Your task to perform on an android device: Is it going to rain today? Image 0: 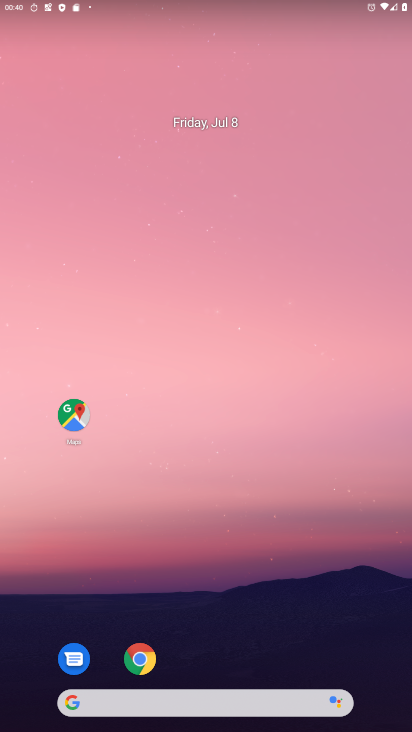
Step 0: click (174, 707)
Your task to perform on an android device: Is it going to rain today? Image 1: 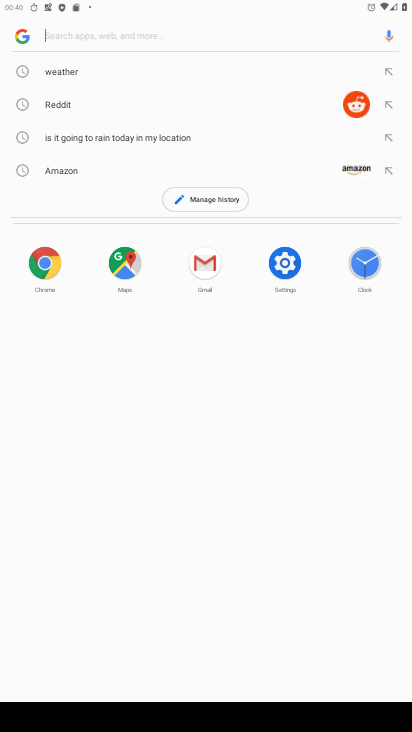
Step 1: click (135, 70)
Your task to perform on an android device: Is it going to rain today? Image 2: 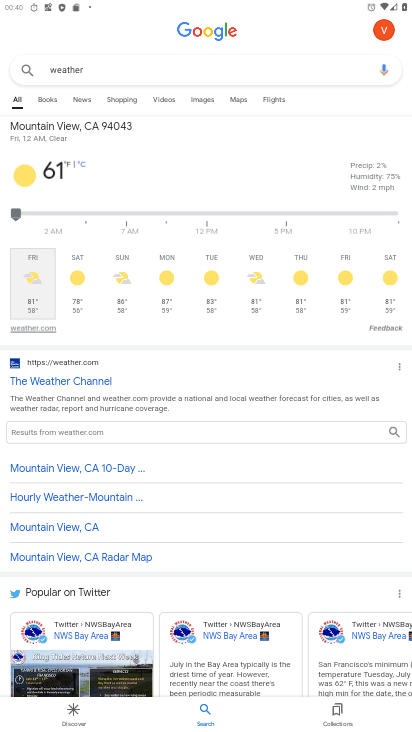
Step 2: task complete